Your task to perform on an android device: turn off location history Image 0: 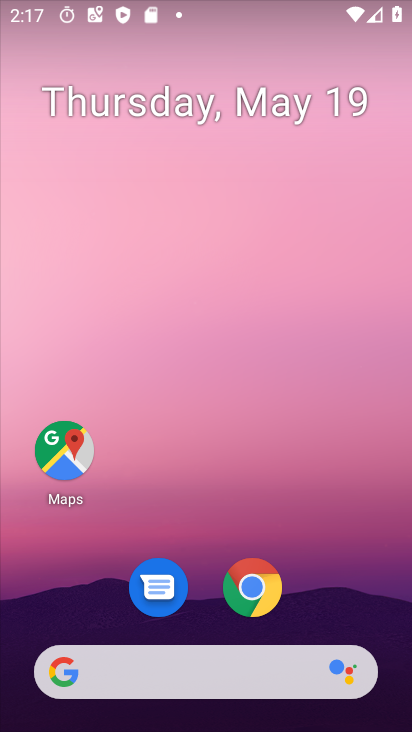
Step 0: drag from (181, 726) to (187, 178)
Your task to perform on an android device: turn off location history Image 1: 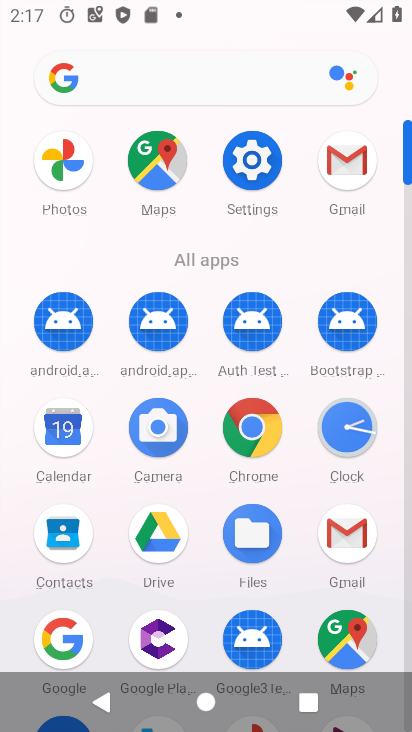
Step 1: click (258, 156)
Your task to perform on an android device: turn off location history Image 2: 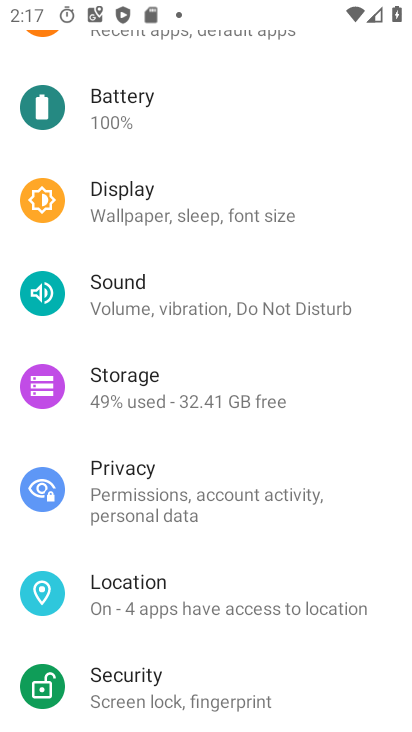
Step 2: click (134, 600)
Your task to perform on an android device: turn off location history Image 3: 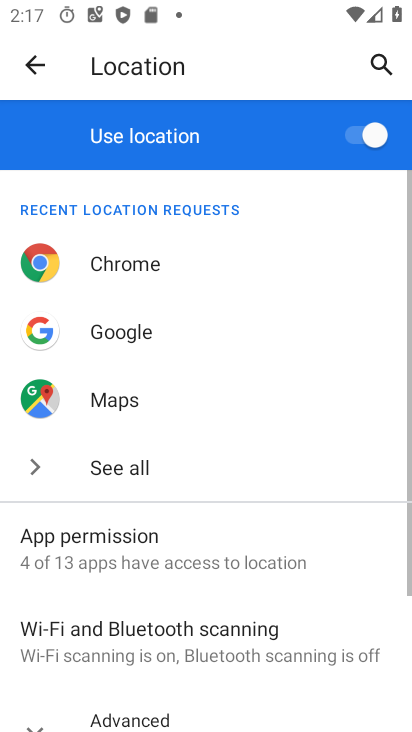
Step 3: drag from (232, 650) to (231, 244)
Your task to perform on an android device: turn off location history Image 4: 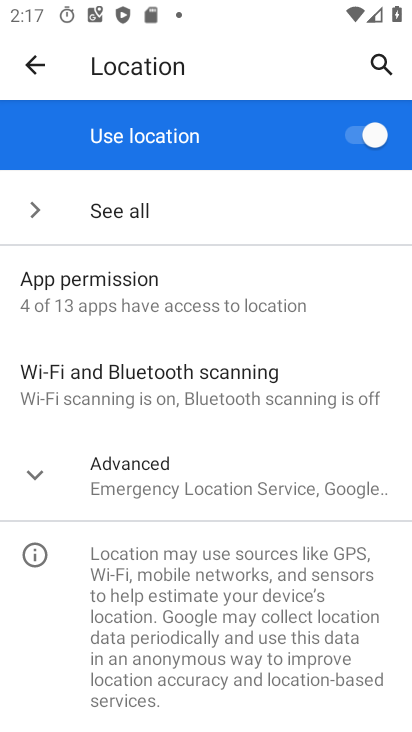
Step 4: click (190, 475)
Your task to perform on an android device: turn off location history Image 5: 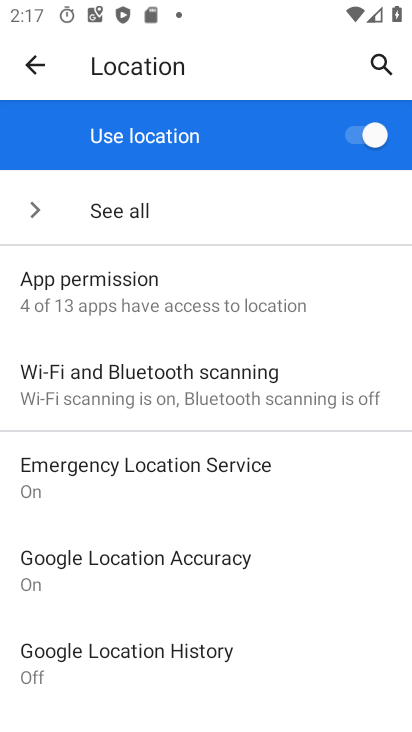
Step 5: drag from (227, 676) to (221, 327)
Your task to perform on an android device: turn off location history Image 6: 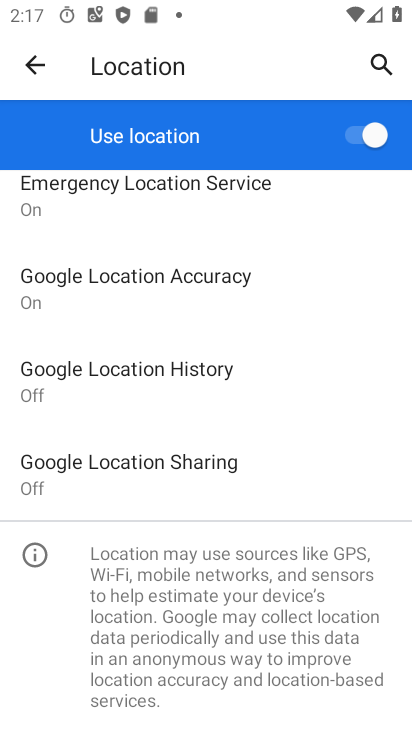
Step 6: click (139, 368)
Your task to perform on an android device: turn off location history Image 7: 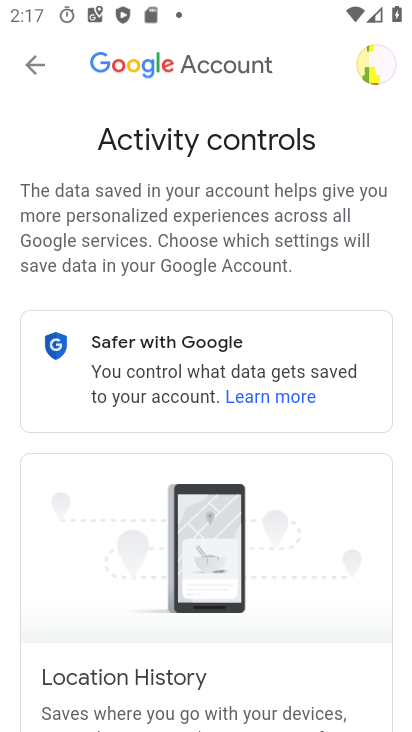
Step 7: drag from (280, 676) to (275, 373)
Your task to perform on an android device: turn off location history Image 8: 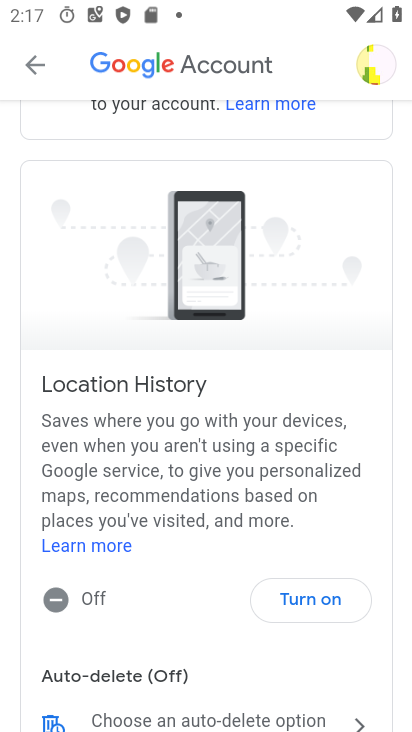
Step 8: click (306, 595)
Your task to perform on an android device: turn off location history Image 9: 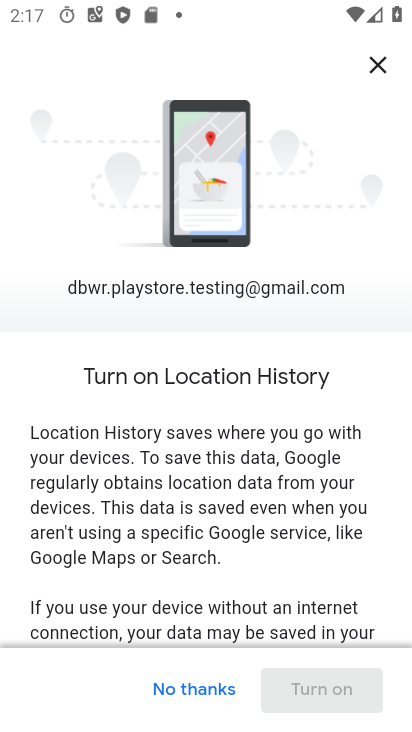
Step 9: drag from (259, 632) to (256, 308)
Your task to perform on an android device: turn off location history Image 10: 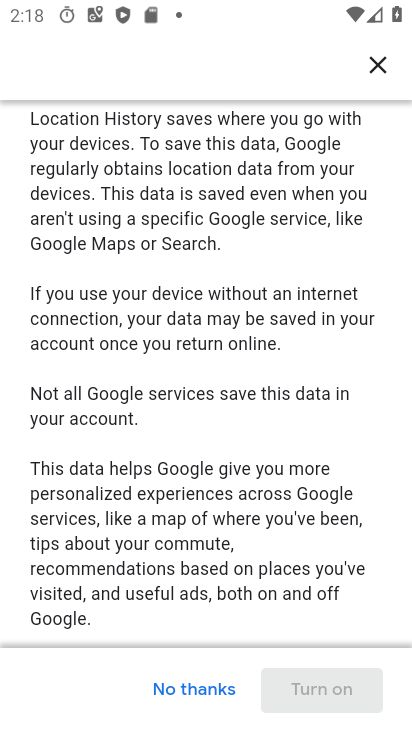
Step 10: drag from (235, 627) to (235, 221)
Your task to perform on an android device: turn off location history Image 11: 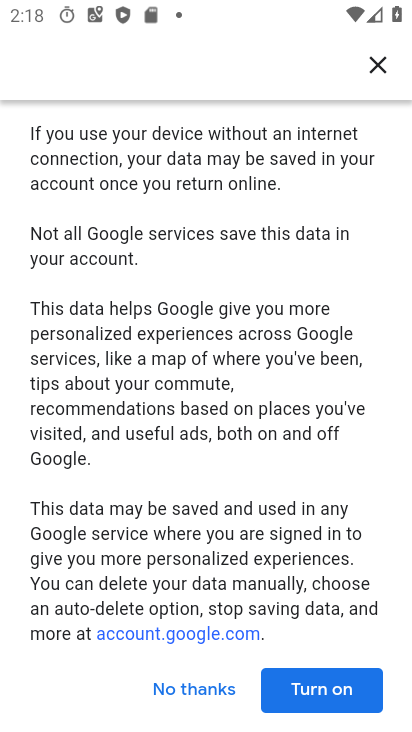
Step 11: click (339, 691)
Your task to perform on an android device: turn off location history Image 12: 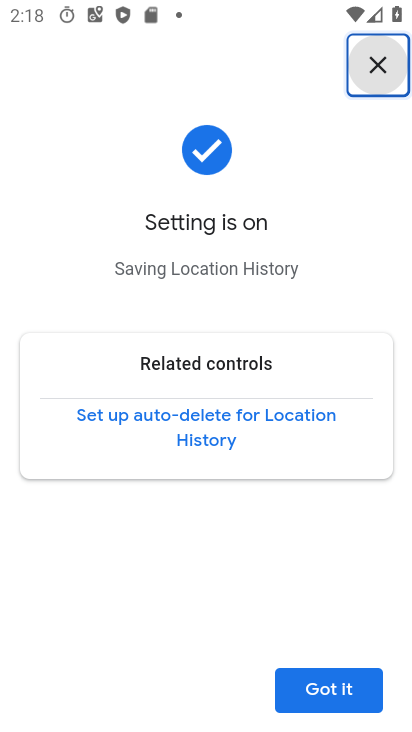
Step 12: task complete